Your task to perform on an android device: delete location history Image 0: 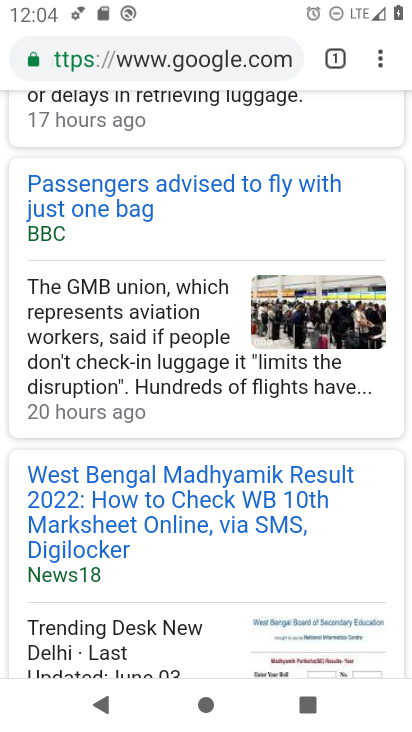
Step 0: press back button
Your task to perform on an android device: delete location history Image 1: 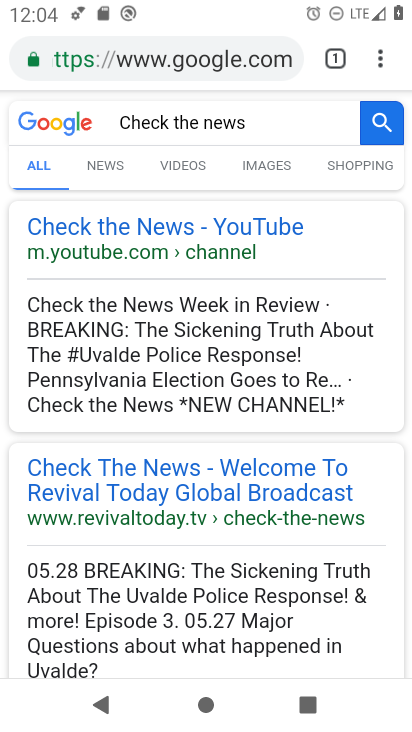
Step 1: press home button
Your task to perform on an android device: delete location history Image 2: 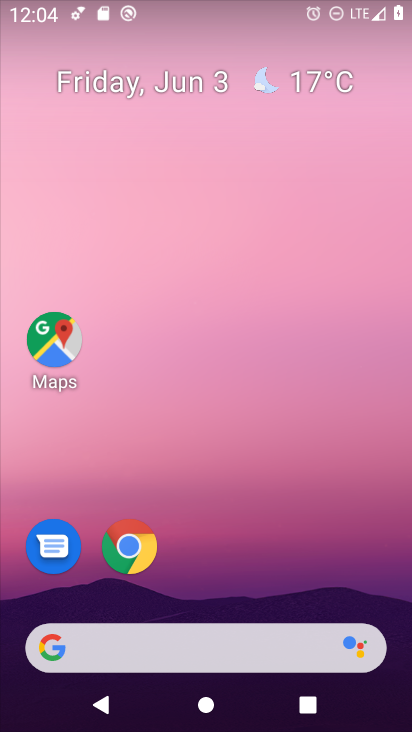
Step 2: drag from (263, 539) to (236, 50)
Your task to perform on an android device: delete location history Image 3: 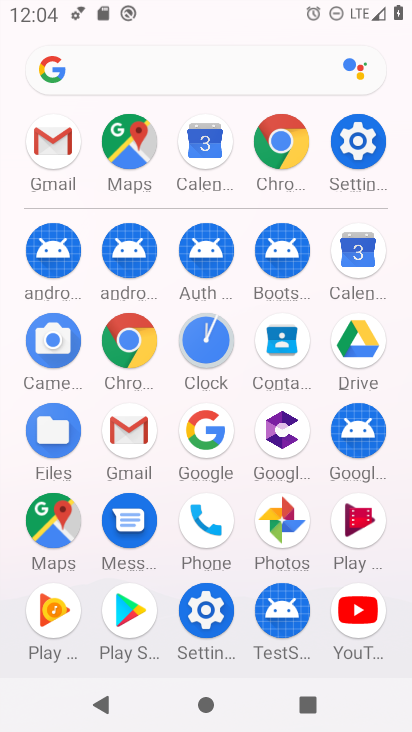
Step 3: click (358, 133)
Your task to perform on an android device: delete location history Image 4: 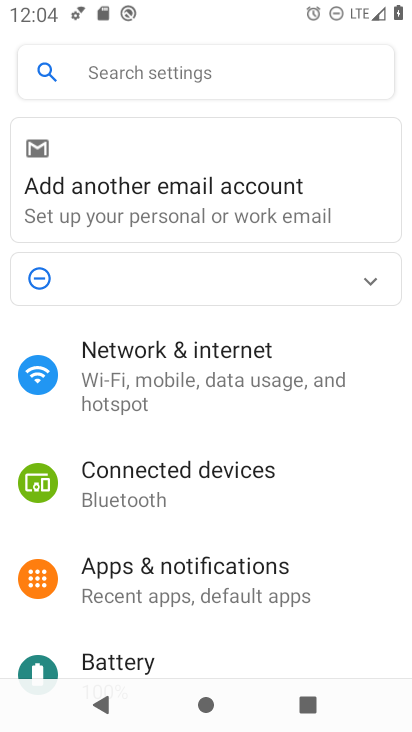
Step 4: drag from (281, 514) to (289, 146)
Your task to perform on an android device: delete location history Image 5: 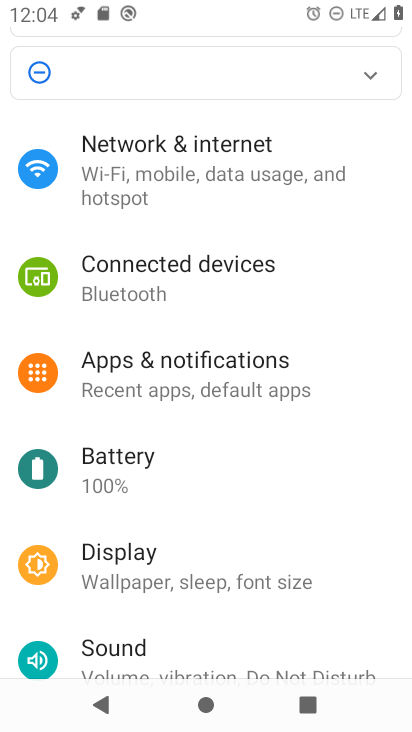
Step 5: drag from (251, 540) to (280, 199)
Your task to perform on an android device: delete location history Image 6: 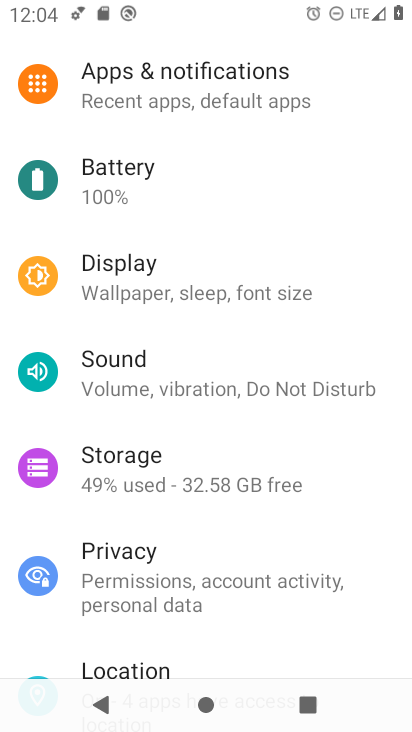
Step 6: drag from (248, 542) to (260, 136)
Your task to perform on an android device: delete location history Image 7: 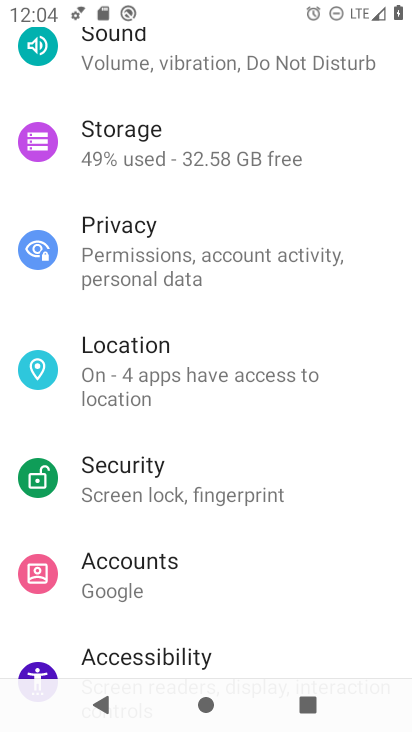
Step 7: click (196, 358)
Your task to perform on an android device: delete location history Image 8: 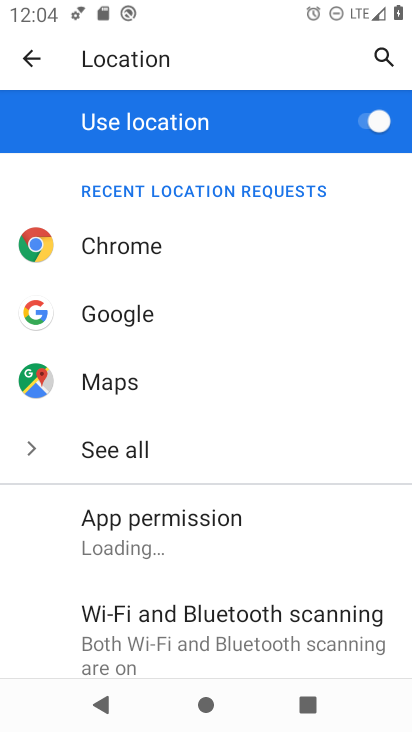
Step 8: drag from (240, 553) to (241, 178)
Your task to perform on an android device: delete location history Image 9: 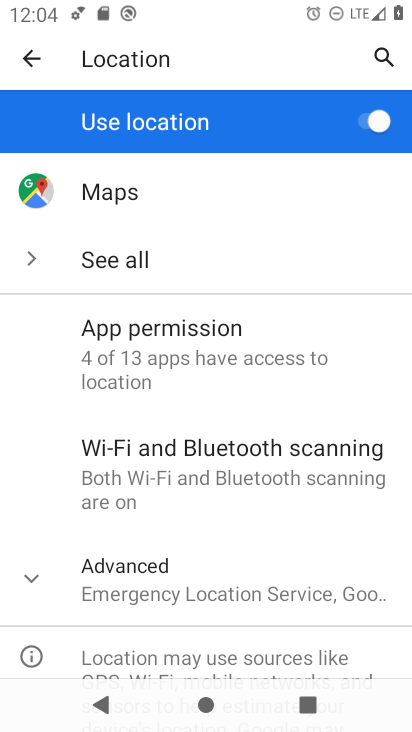
Step 9: click (54, 567)
Your task to perform on an android device: delete location history Image 10: 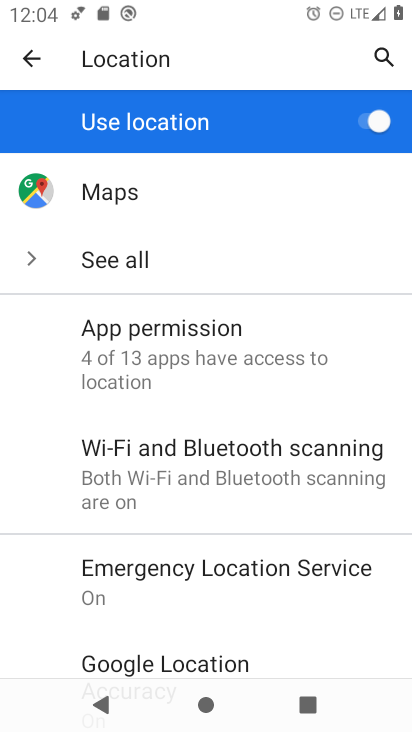
Step 10: drag from (254, 359) to (260, 216)
Your task to perform on an android device: delete location history Image 11: 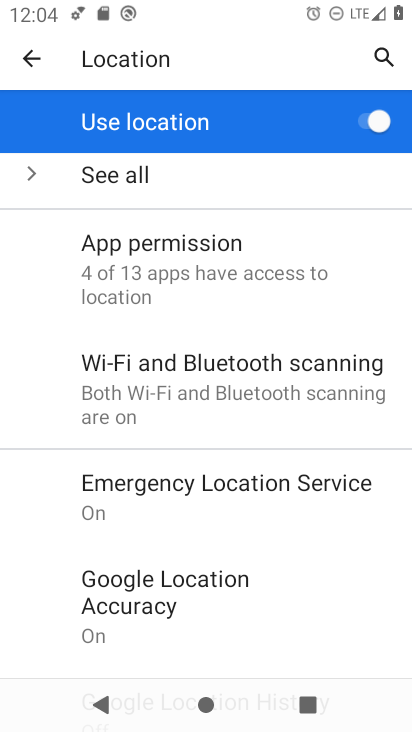
Step 11: drag from (226, 575) to (225, 187)
Your task to perform on an android device: delete location history Image 12: 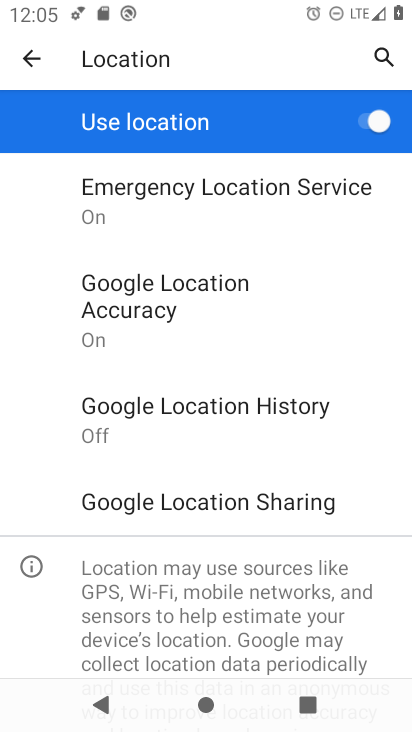
Step 12: click (203, 404)
Your task to perform on an android device: delete location history Image 13: 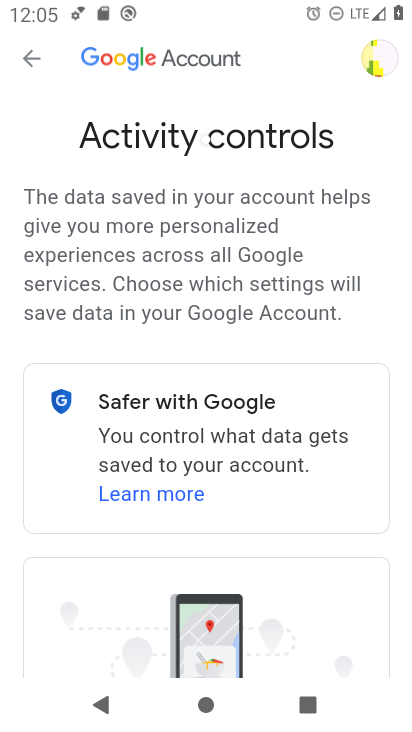
Step 13: drag from (261, 522) to (296, 105)
Your task to perform on an android device: delete location history Image 14: 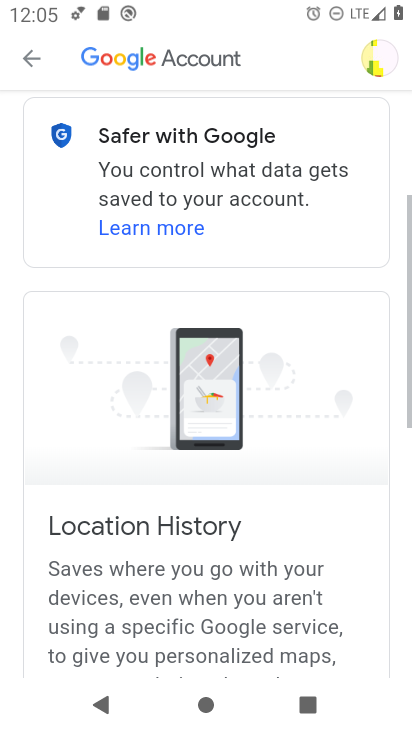
Step 14: drag from (230, 506) to (236, 97)
Your task to perform on an android device: delete location history Image 15: 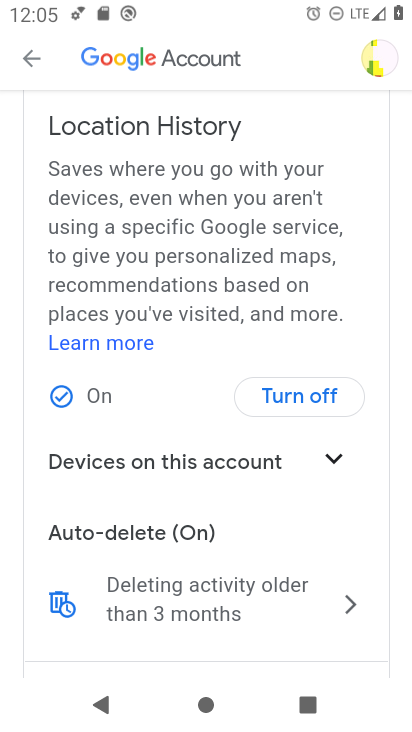
Step 15: click (134, 594)
Your task to perform on an android device: delete location history Image 16: 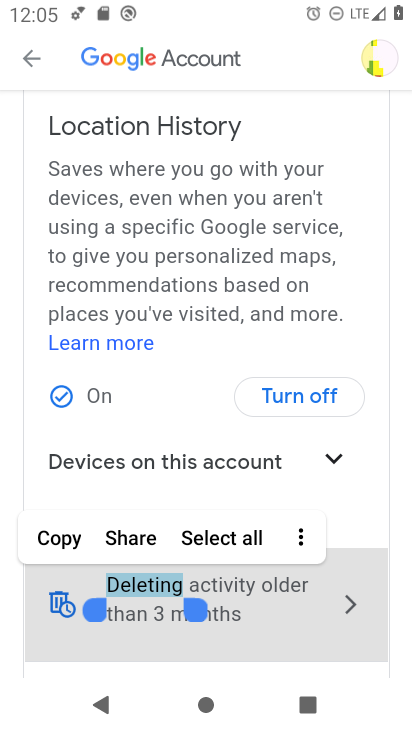
Step 16: click (150, 610)
Your task to perform on an android device: delete location history Image 17: 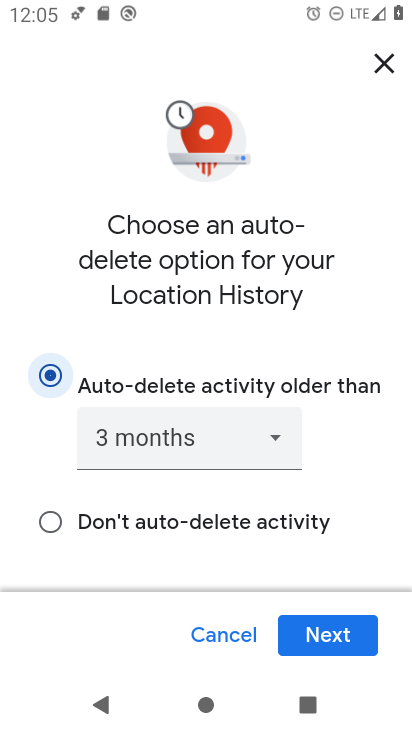
Step 17: click (314, 629)
Your task to perform on an android device: delete location history Image 18: 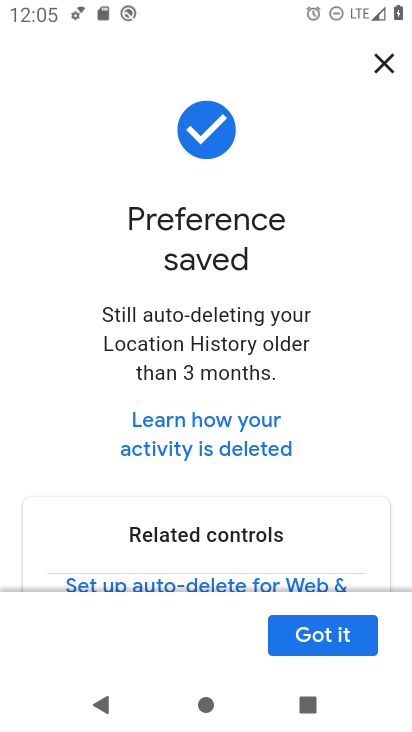
Step 18: click (309, 632)
Your task to perform on an android device: delete location history Image 19: 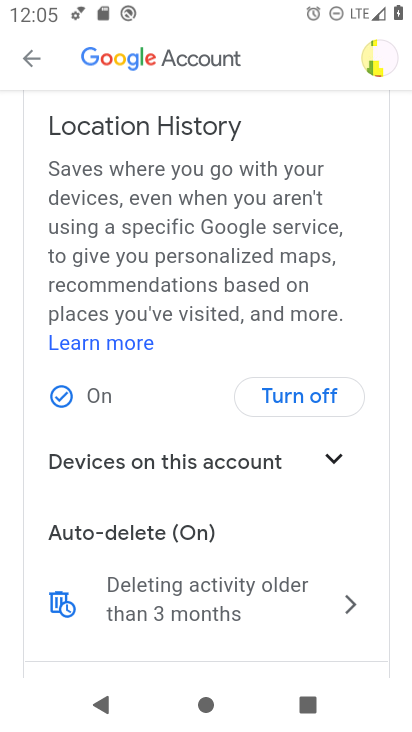
Step 19: task complete